Your task to perform on an android device: turn off airplane mode Image 0: 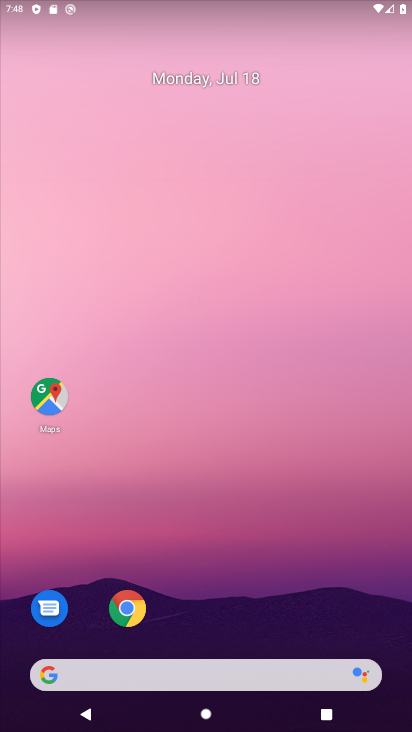
Step 0: drag from (29, 532) to (38, 268)
Your task to perform on an android device: turn off airplane mode Image 1: 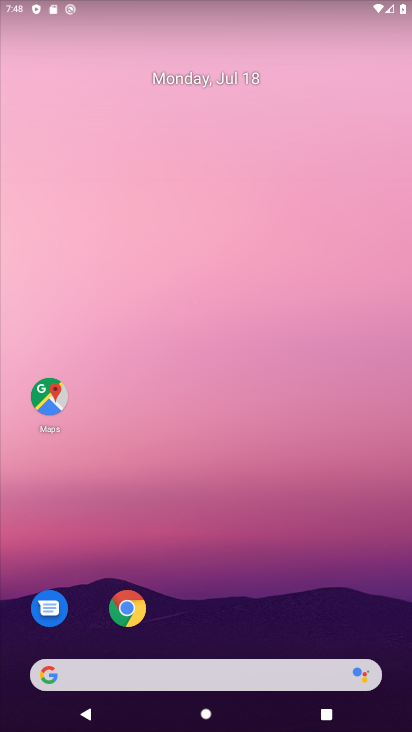
Step 1: drag from (39, 553) to (106, 112)
Your task to perform on an android device: turn off airplane mode Image 2: 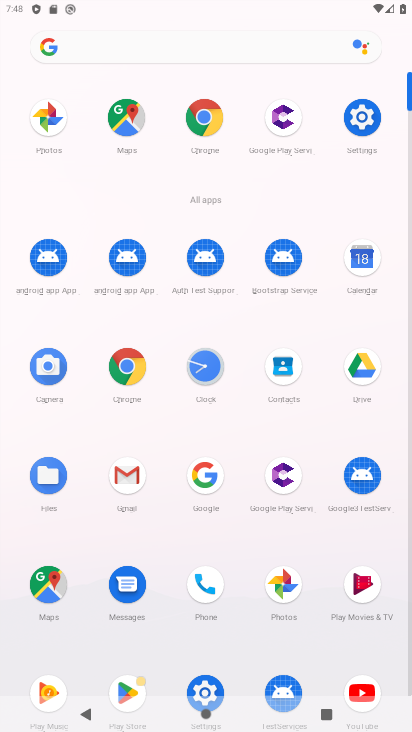
Step 2: click (197, 691)
Your task to perform on an android device: turn off airplane mode Image 3: 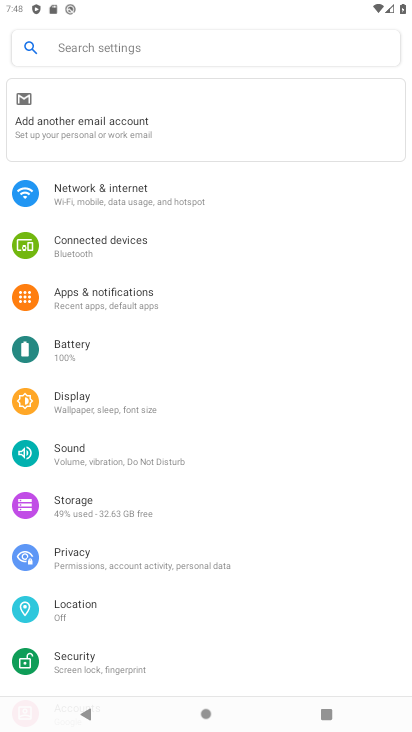
Step 3: click (117, 200)
Your task to perform on an android device: turn off airplane mode Image 4: 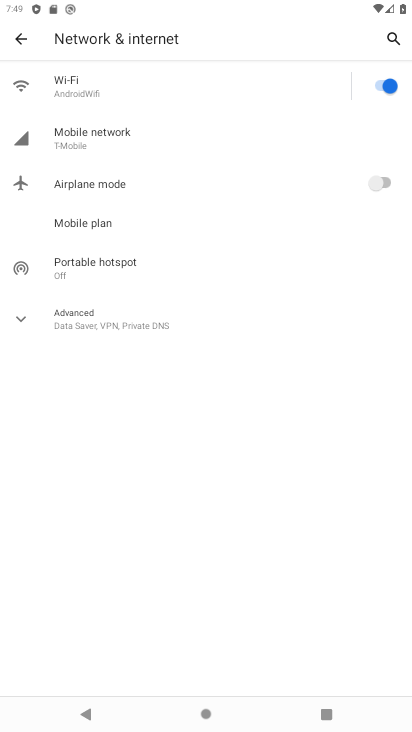
Step 4: task complete